Your task to perform on an android device: turn off wifi Image 0: 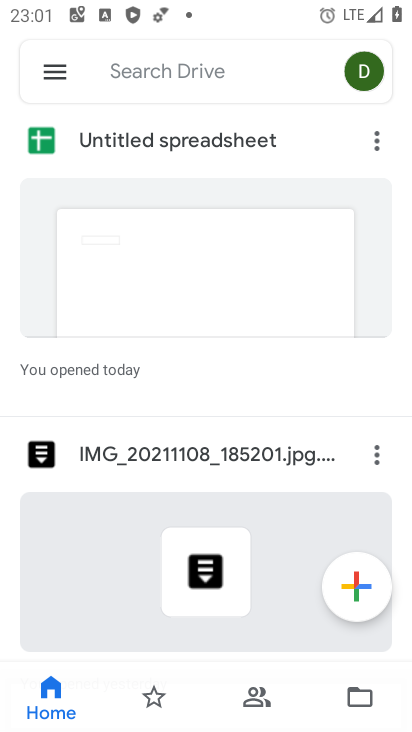
Step 0: drag from (316, 0) to (305, 396)
Your task to perform on an android device: turn off wifi Image 1: 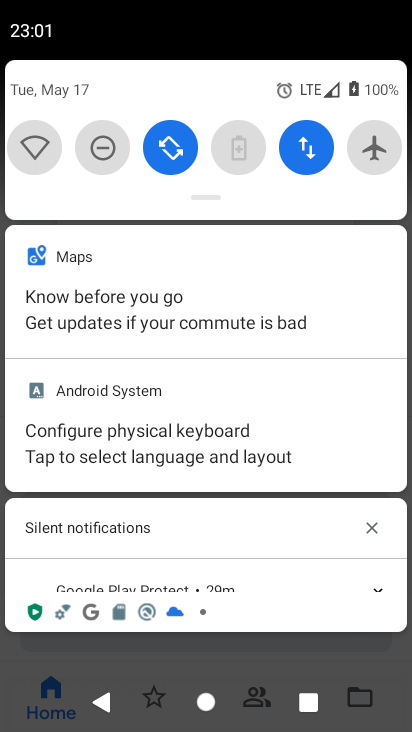
Step 1: task complete